Your task to perform on an android device: Toggle the flashlight Image 0: 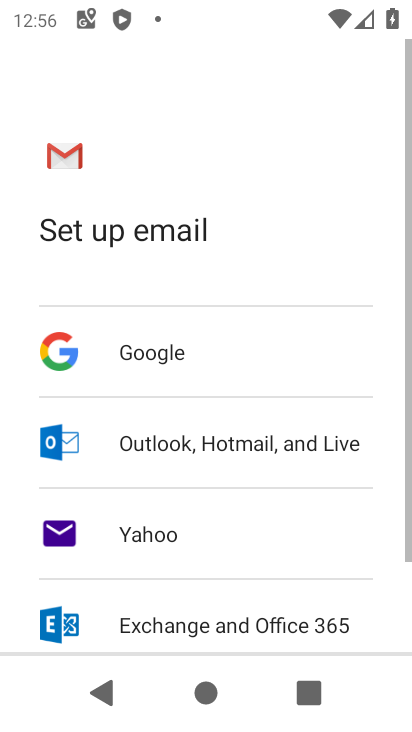
Step 0: press home button
Your task to perform on an android device: Toggle the flashlight Image 1: 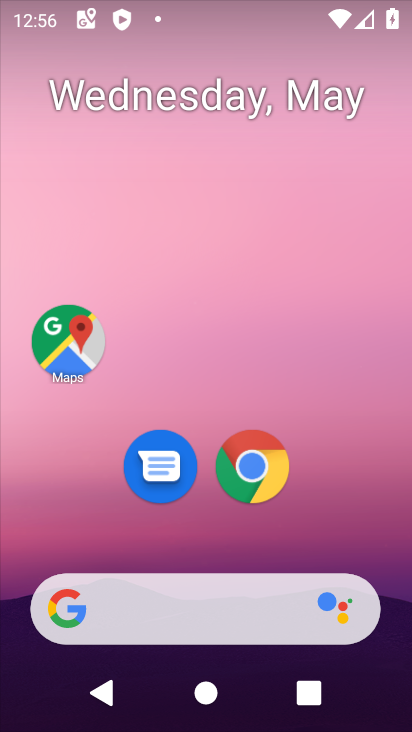
Step 1: drag from (209, 508) to (265, 41)
Your task to perform on an android device: Toggle the flashlight Image 2: 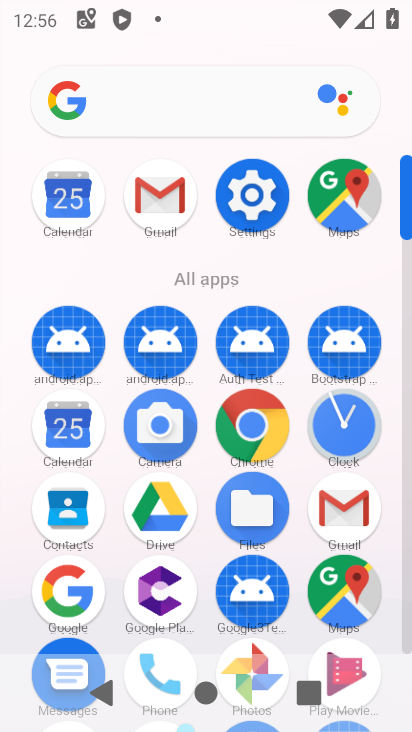
Step 2: click (254, 191)
Your task to perform on an android device: Toggle the flashlight Image 3: 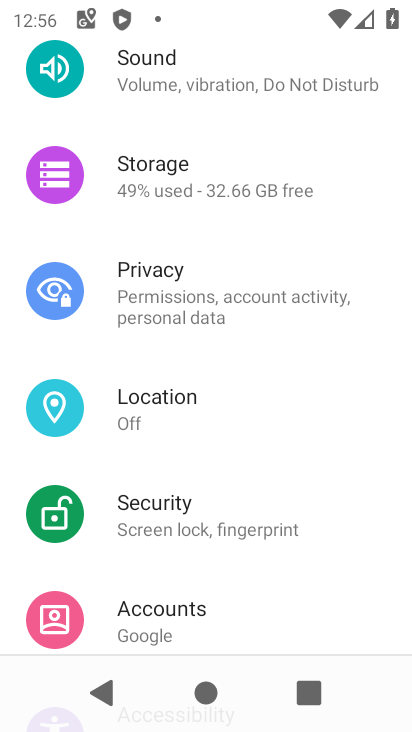
Step 3: drag from (223, 95) to (231, 624)
Your task to perform on an android device: Toggle the flashlight Image 4: 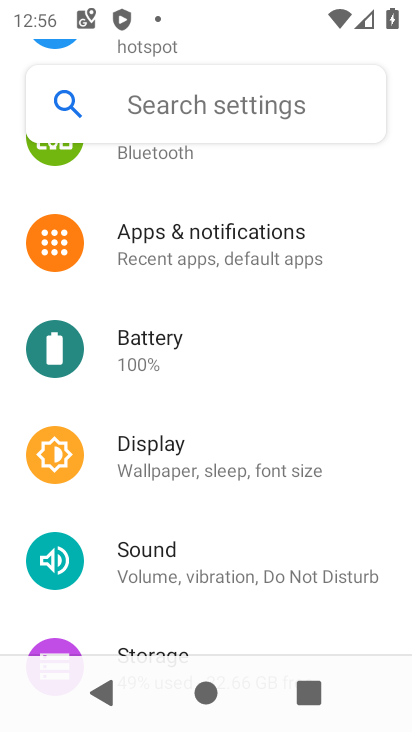
Step 4: click (164, 92)
Your task to perform on an android device: Toggle the flashlight Image 5: 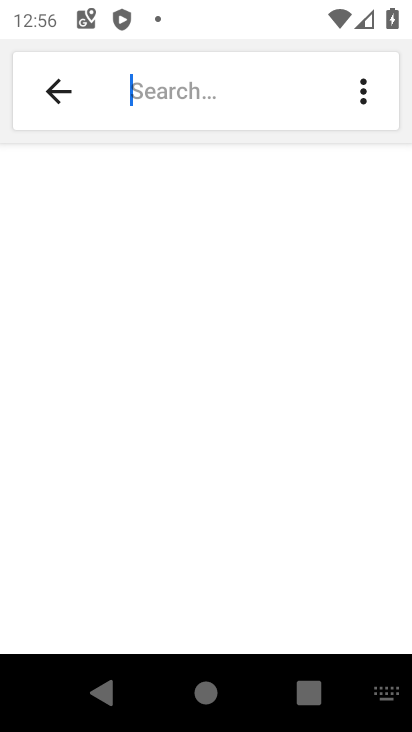
Step 5: type "flash"
Your task to perform on an android device: Toggle the flashlight Image 6: 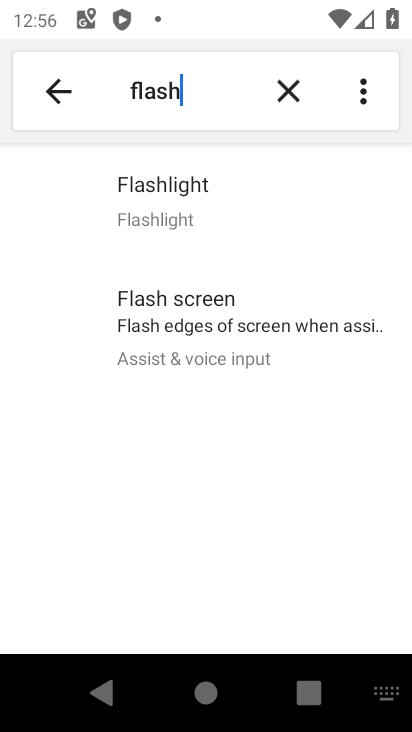
Step 6: task complete